Your task to perform on an android device: Go to accessibility settings Image 0: 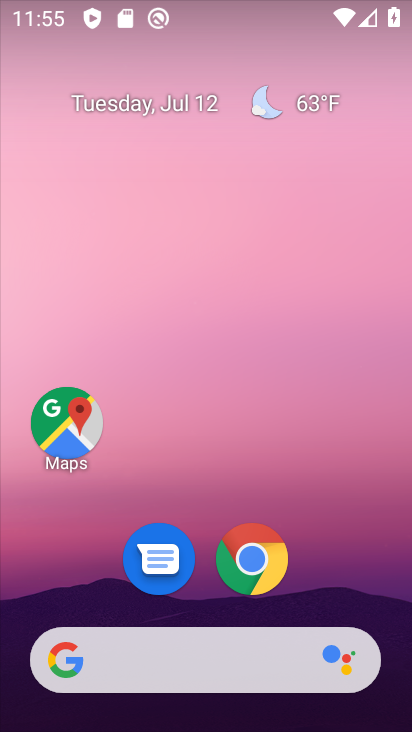
Step 0: drag from (371, 584) to (391, 78)
Your task to perform on an android device: Go to accessibility settings Image 1: 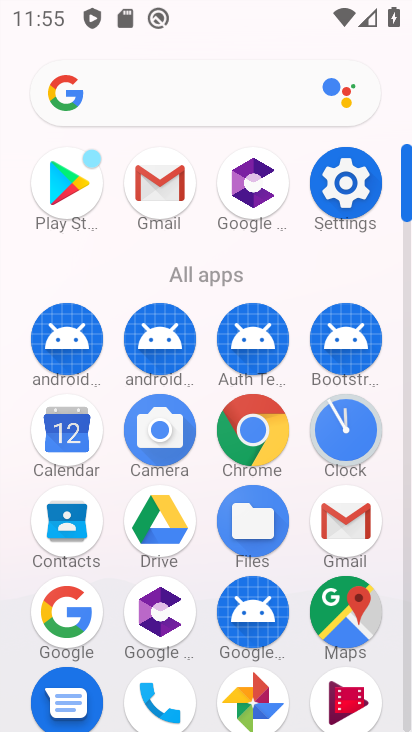
Step 1: click (358, 185)
Your task to perform on an android device: Go to accessibility settings Image 2: 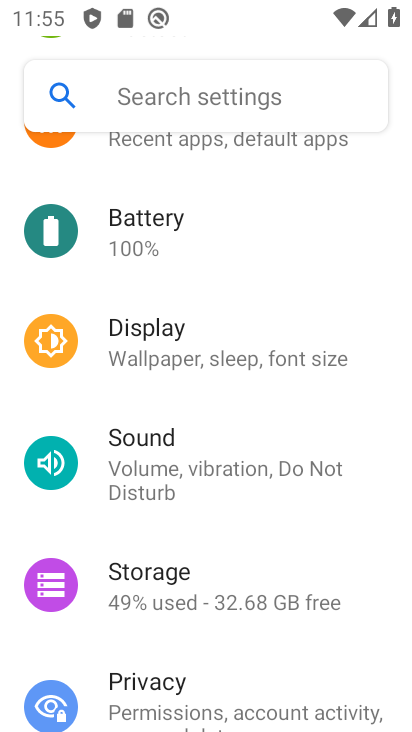
Step 2: drag from (365, 477) to (369, 291)
Your task to perform on an android device: Go to accessibility settings Image 3: 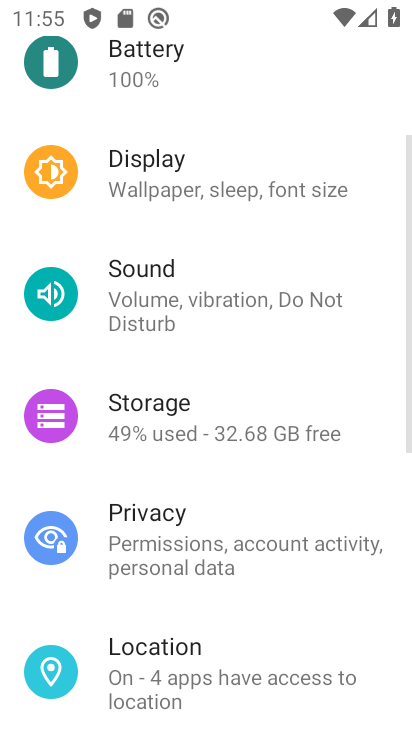
Step 3: drag from (362, 476) to (364, 306)
Your task to perform on an android device: Go to accessibility settings Image 4: 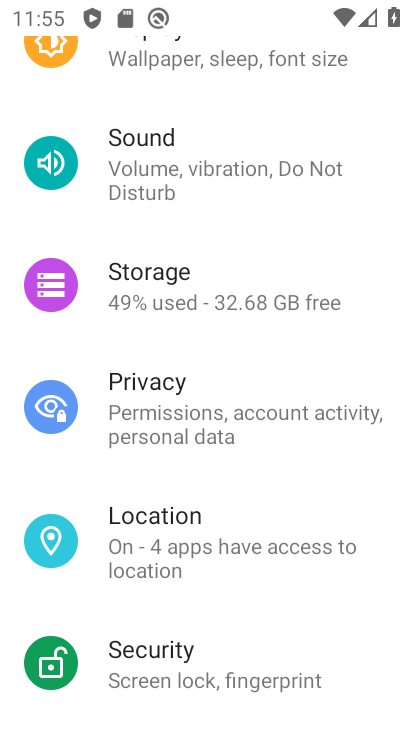
Step 4: drag from (364, 494) to (366, 266)
Your task to perform on an android device: Go to accessibility settings Image 5: 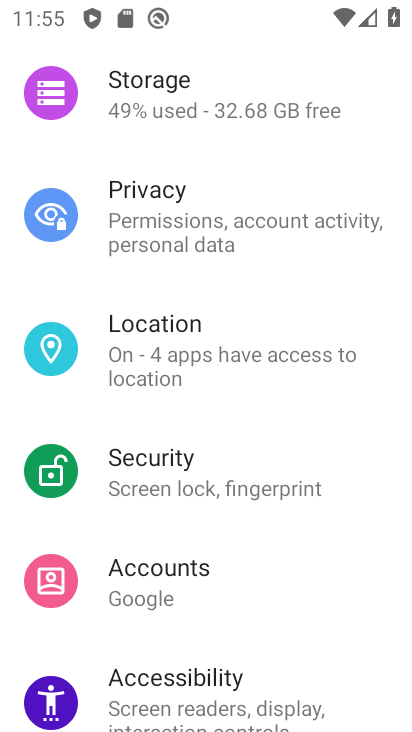
Step 5: drag from (324, 552) to (323, 400)
Your task to perform on an android device: Go to accessibility settings Image 6: 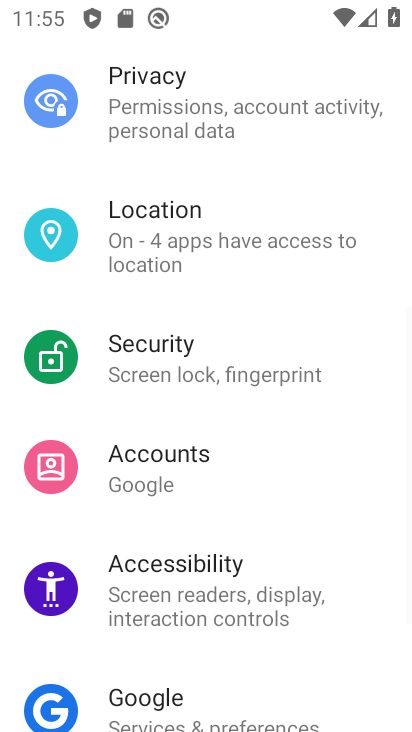
Step 6: drag from (348, 525) to (353, 341)
Your task to perform on an android device: Go to accessibility settings Image 7: 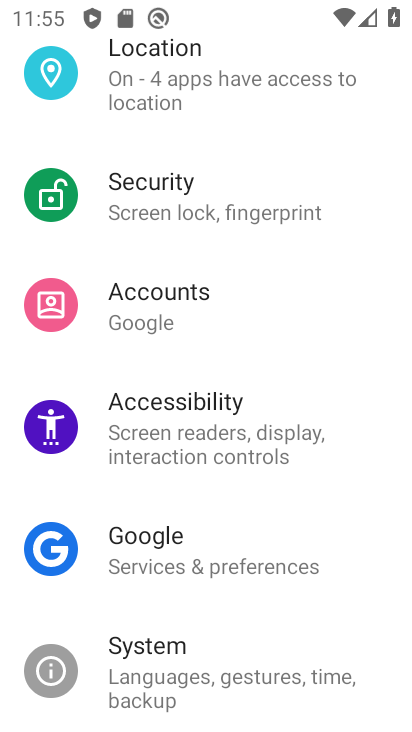
Step 7: drag from (336, 517) to (338, 202)
Your task to perform on an android device: Go to accessibility settings Image 8: 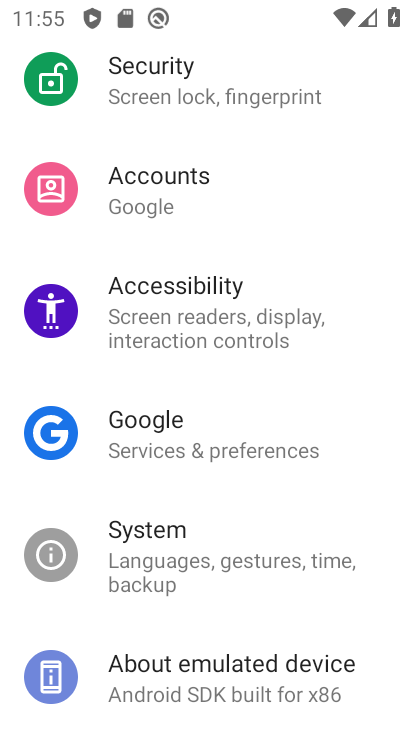
Step 8: drag from (366, 526) to (367, 303)
Your task to perform on an android device: Go to accessibility settings Image 9: 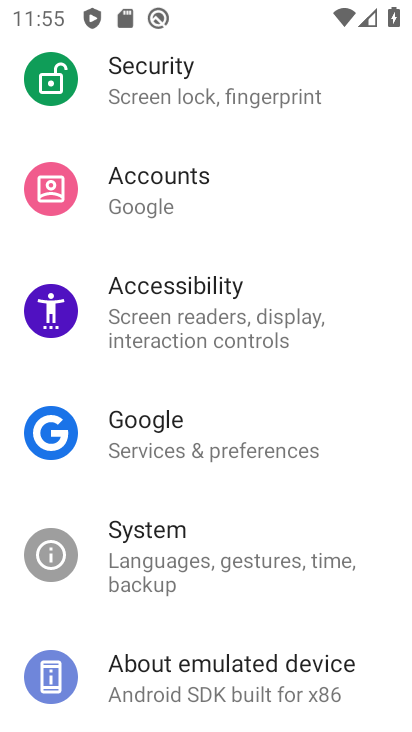
Step 9: drag from (348, 223) to (345, 420)
Your task to perform on an android device: Go to accessibility settings Image 10: 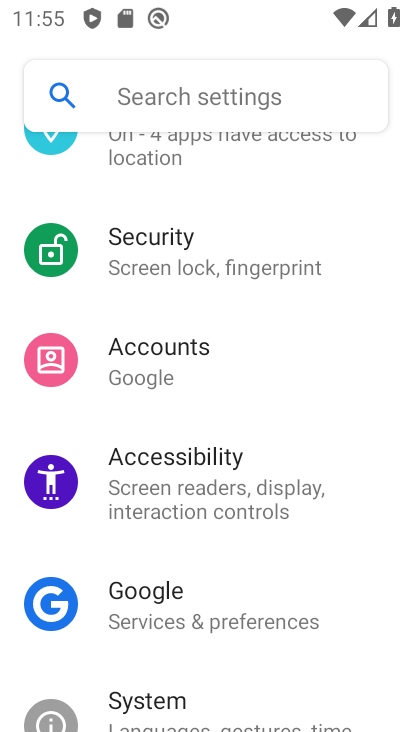
Step 10: click (301, 478)
Your task to perform on an android device: Go to accessibility settings Image 11: 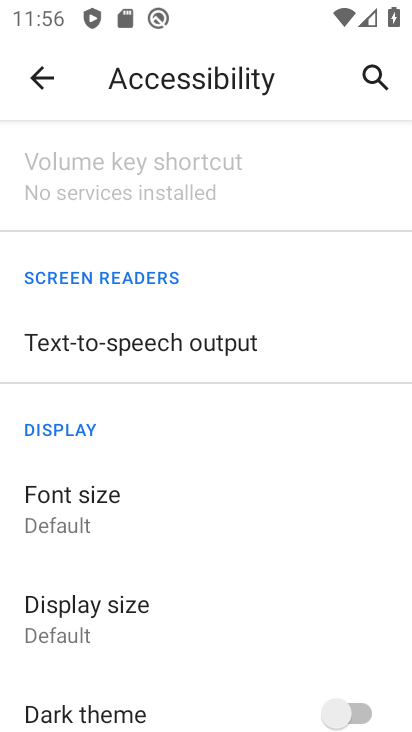
Step 11: task complete